Your task to perform on an android device: Open Amazon Image 0: 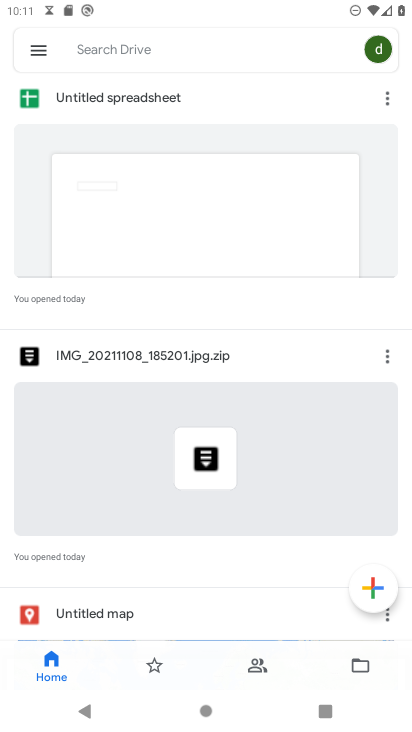
Step 0: press home button
Your task to perform on an android device: Open Amazon Image 1: 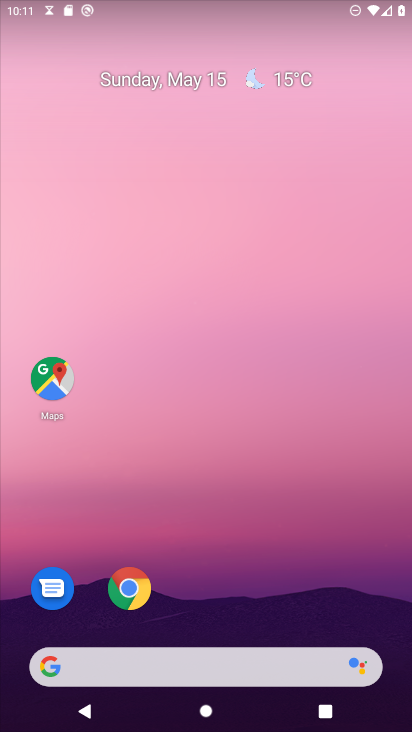
Step 1: click (138, 591)
Your task to perform on an android device: Open Amazon Image 2: 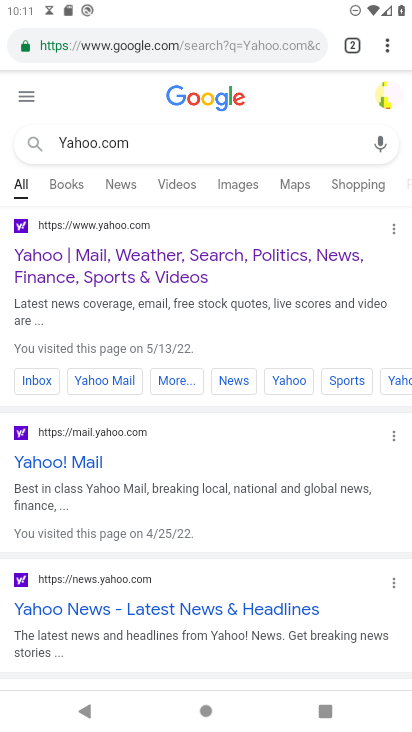
Step 2: click (386, 47)
Your task to perform on an android device: Open Amazon Image 3: 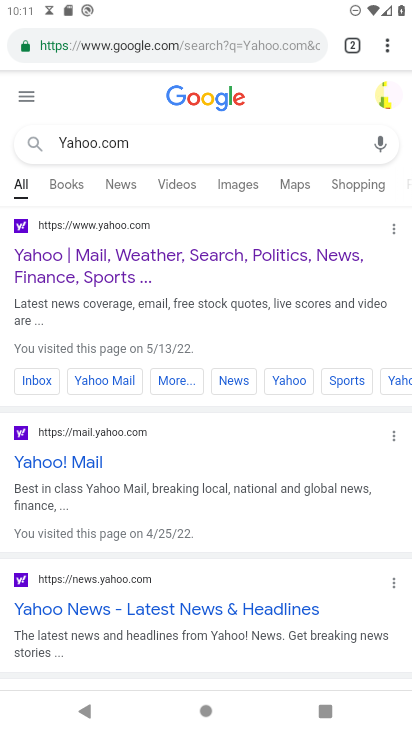
Step 3: click (382, 44)
Your task to perform on an android device: Open Amazon Image 4: 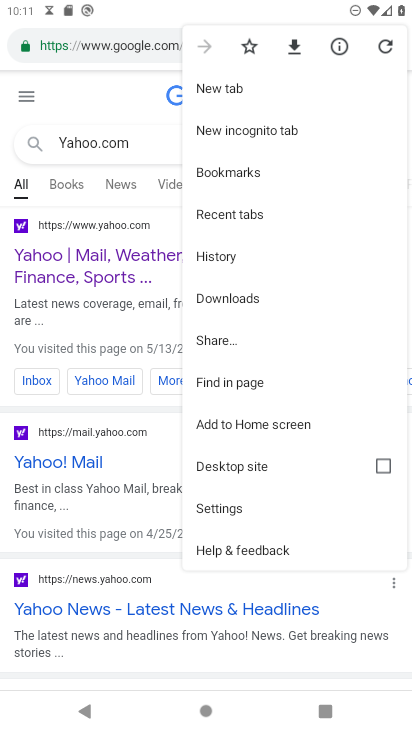
Step 4: click (235, 89)
Your task to perform on an android device: Open Amazon Image 5: 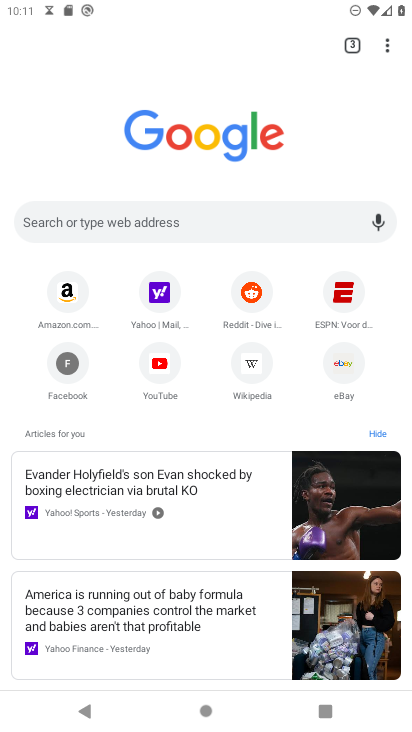
Step 5: click (70, 296)
Your task to perform on an android device: Open Amazon Image 6: 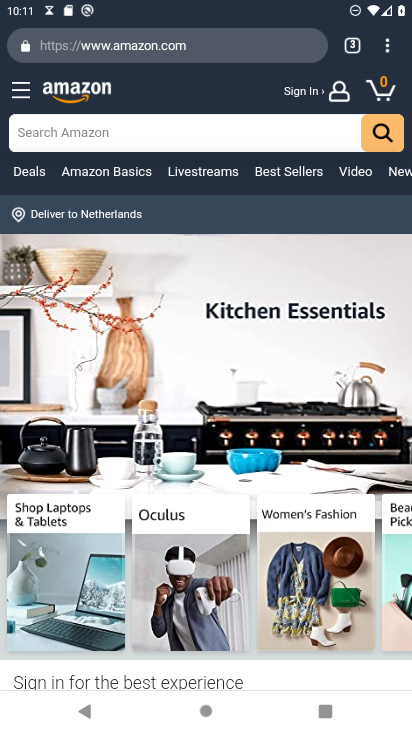
Step 6: task complete